Your task to perform on an android device: Open the web browser Image 0: 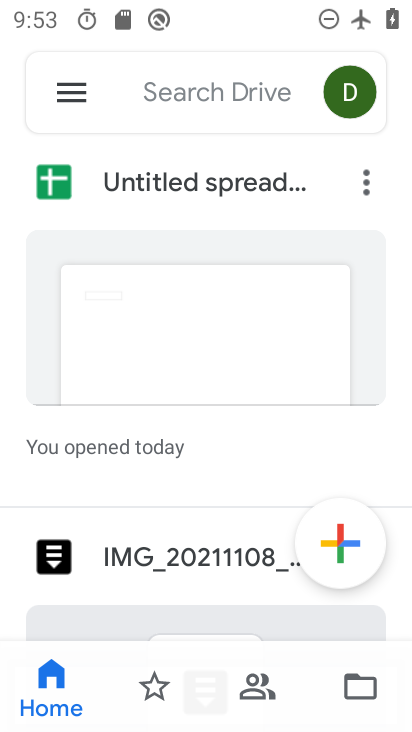
Step 0: press home button
Your task to perform on an android device: Open the web browser Image 1: 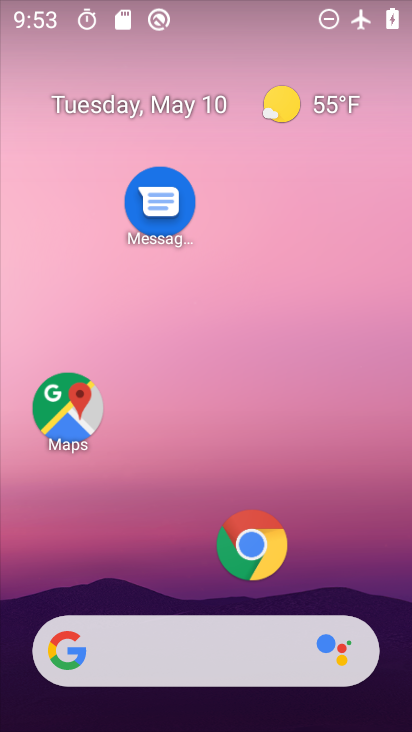
Step 1: drag from (179, 594) to (179, 180)
Your task to perform on an android device: Open the web browser Image 2: 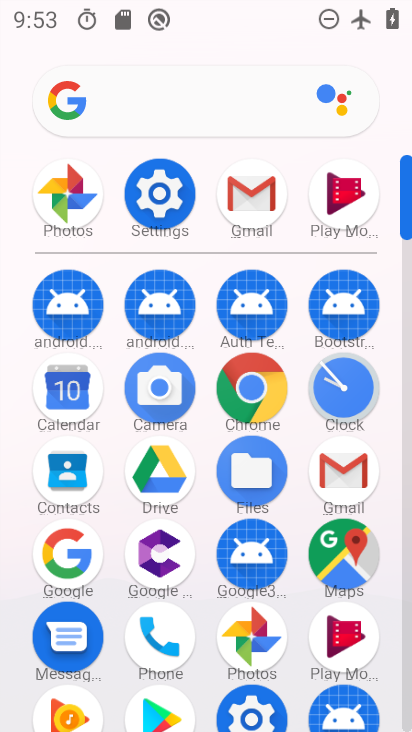
Step 2: click (252, 408)
Your task to perform on an android device: Open the web browser Image 3: 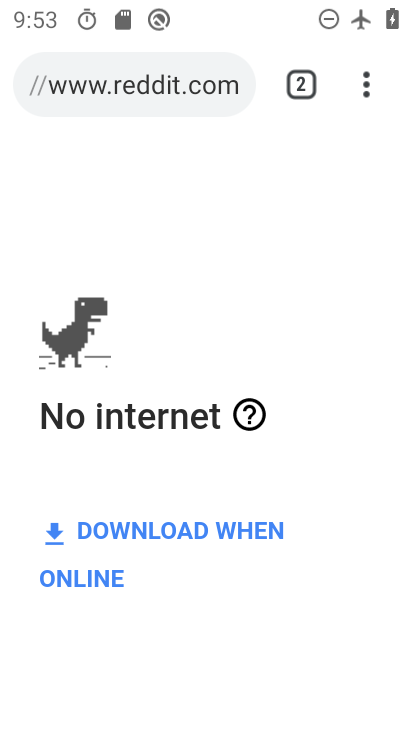
Step 3: task complete